Your task to perform on an android device: remove spam from my inbox in the gmail app Image 0: 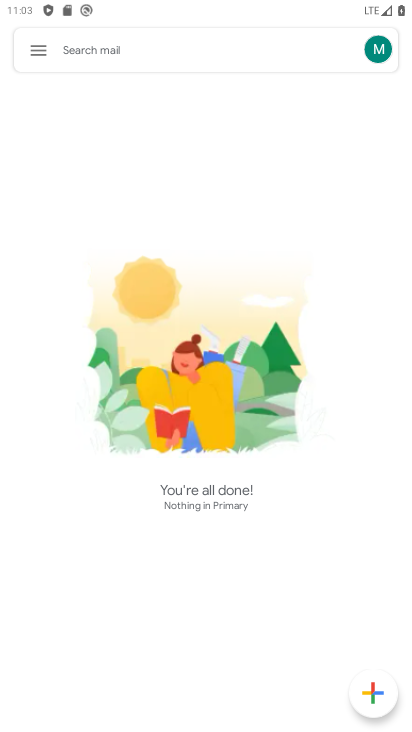
Step 0: press home button
Your task to perform on an android device: remove spam from my inbox in the gmail app Image 1: 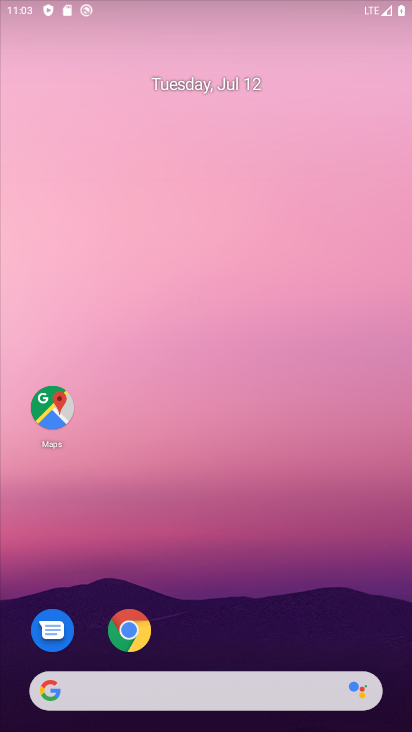
Step 1: drag from (362, 688) to (165, 23)
Your task to perform on an android device: remove spam from my inbox in the gmail app Image 2: 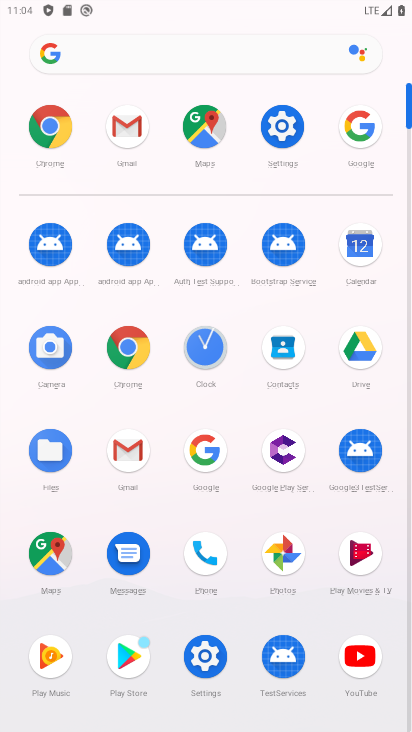
Step 2: click (110, 440)
Your task to perform on an android device: remove spam from my inbox in the gmail app Image 3: 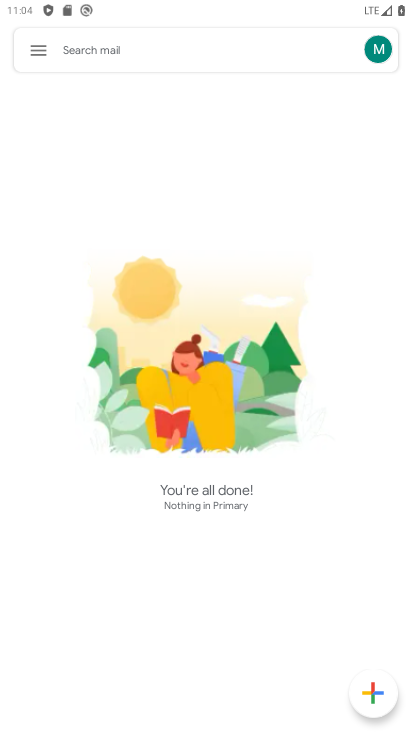
Step 3: click (28, 53)
Your task to perform on an android device: remove spam from my inbox in the gmail app Image 4: 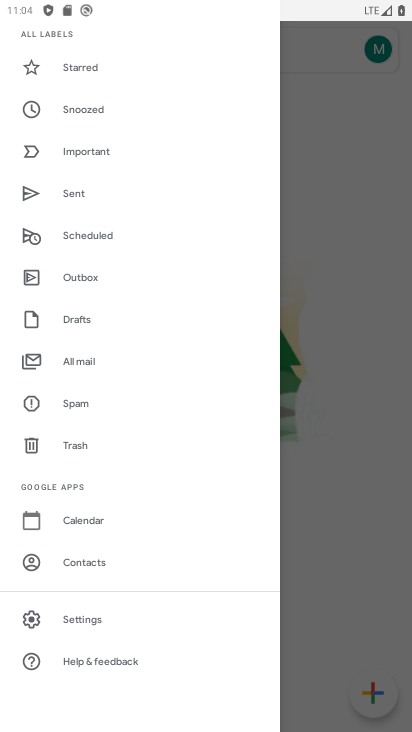
Step 4: drag from (105, 69) to (96, 555)
Your task to perform on an android device: remove spam from my inbox in the gmail app Image 5: 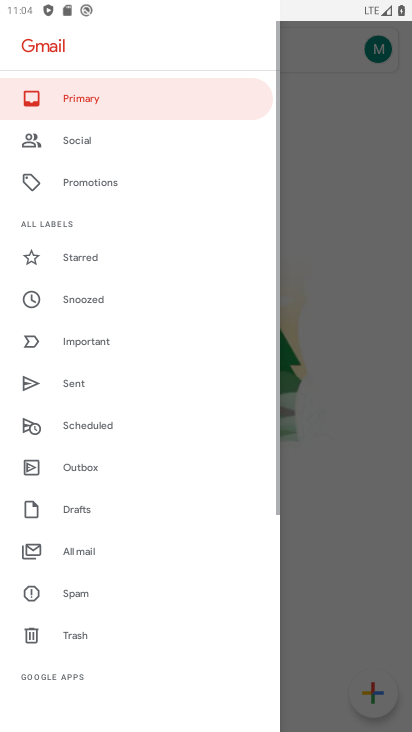
Step 5: click (64, 95)
Your task to perform on an android device: remove spam from my inbox in the gmail app Image 6: 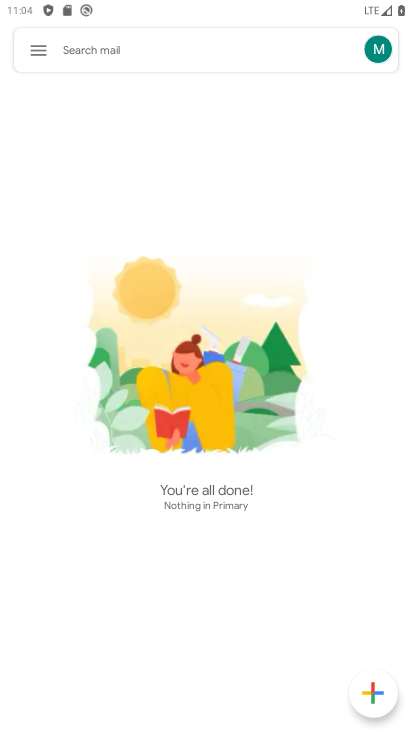
Step 6: task complete